Your task to perform on an android device: check google app version Image 0: 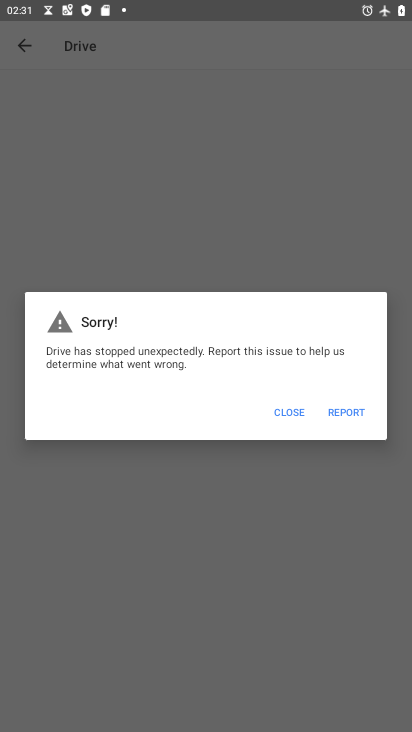
Step 0: press home button
Your task to perform on an android device: check google app version Image 1: 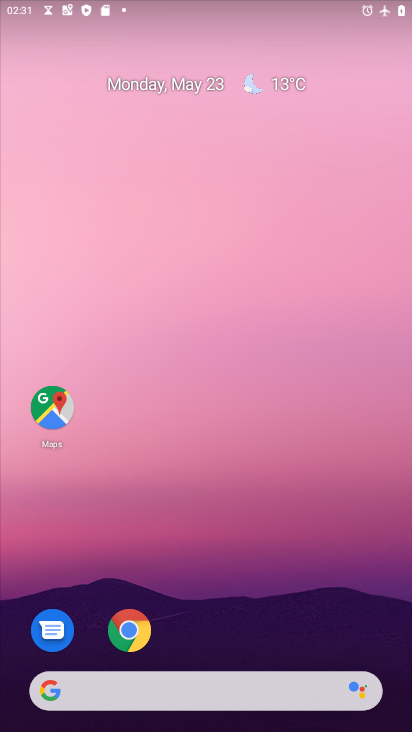
Step 1: drag from (284, 590) to (148, 50)
Your task to perform on an android device: check google app version Image 2: 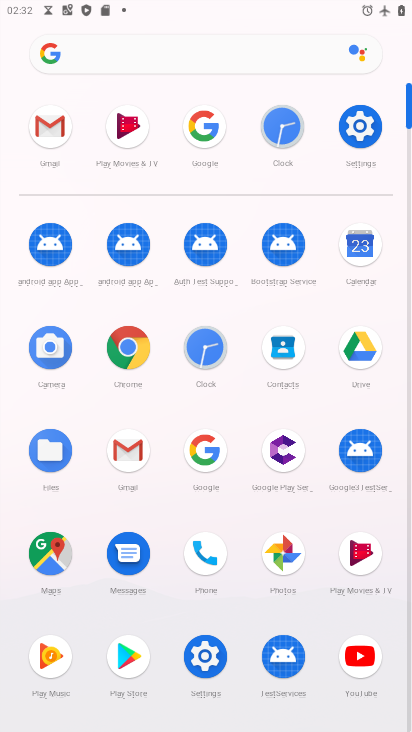
Step 2: click (207, 456)
Your task to perform on an android device: check google app version Image 3: 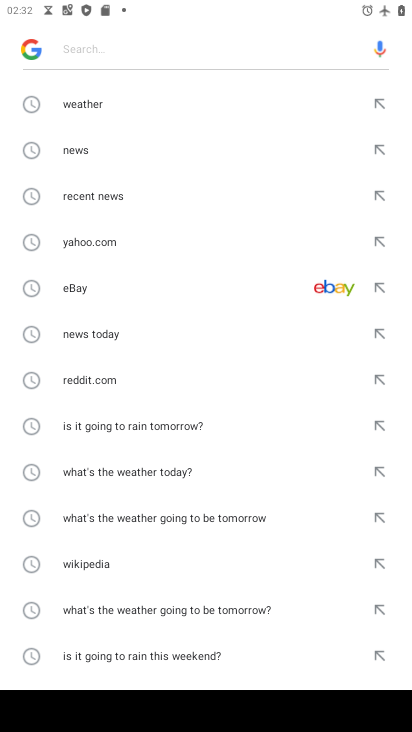
Step 3: press back button
Your task to perform on an android device: check google app version Image 4: 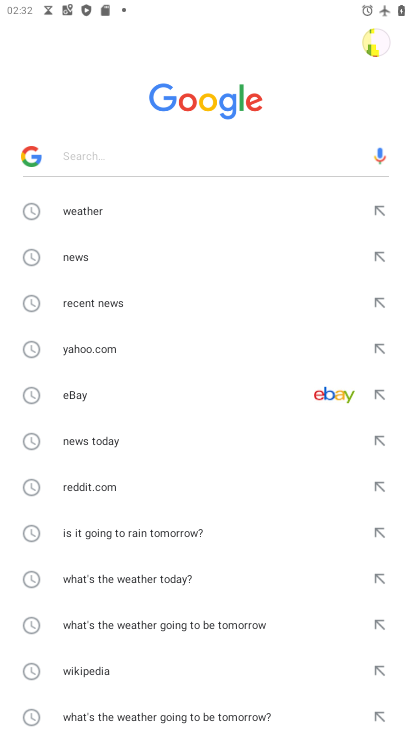
Step 4: press back button
Your task to perform on an android device: check google app version Image 5: 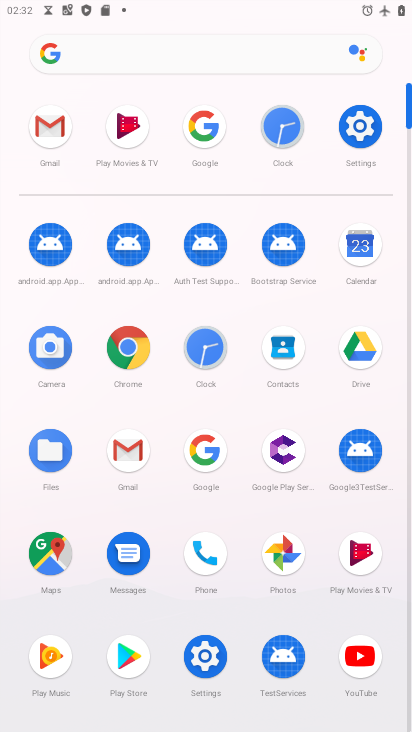
Step 5: click (205, 454)
Your task to perform on an android device: check google app version Image 6: 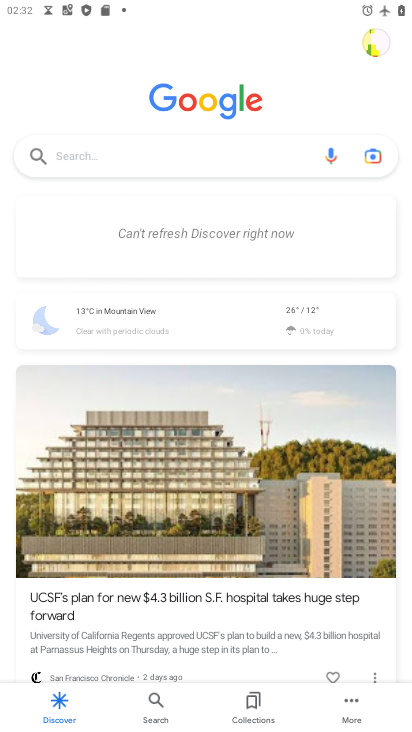
Step 6: click (349, 703)
Your task to perform on an android device: check google app version Image 7: 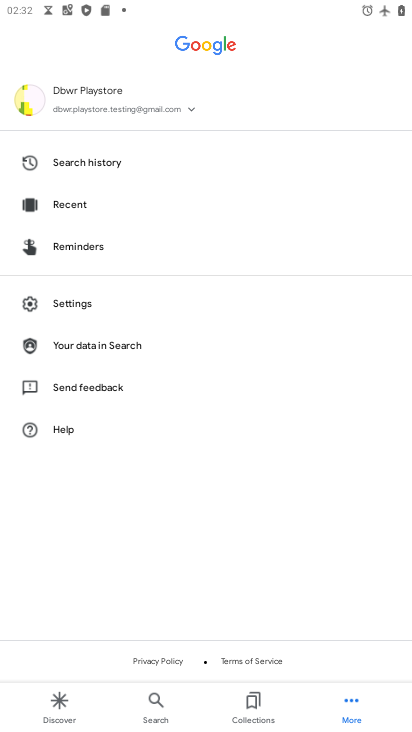
Step 7: click (93, 305)
Your task to perform on an android device: check google app version Image 8: 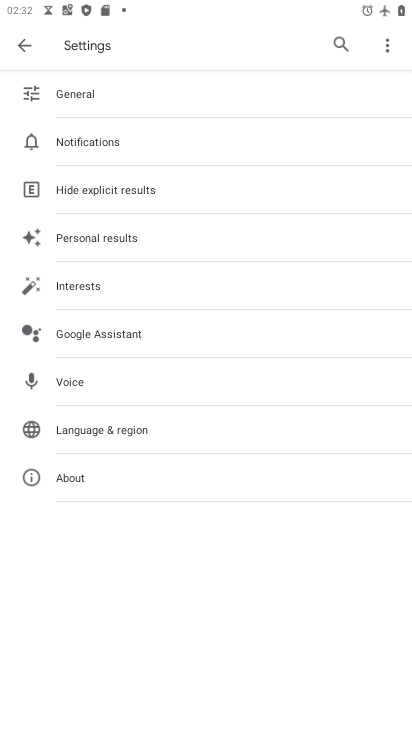
Step 8: click (91, 486)
Your task to perform on an android device: check google app version Image 9: 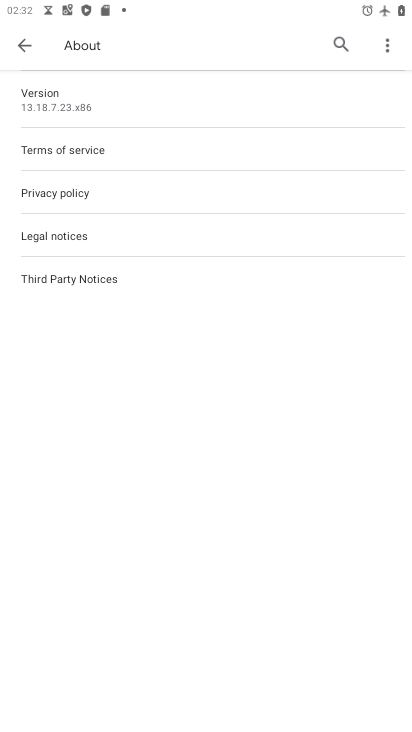
Step 9: click (233, 105)
Your task to perform on an android device: check google app version Image 10: 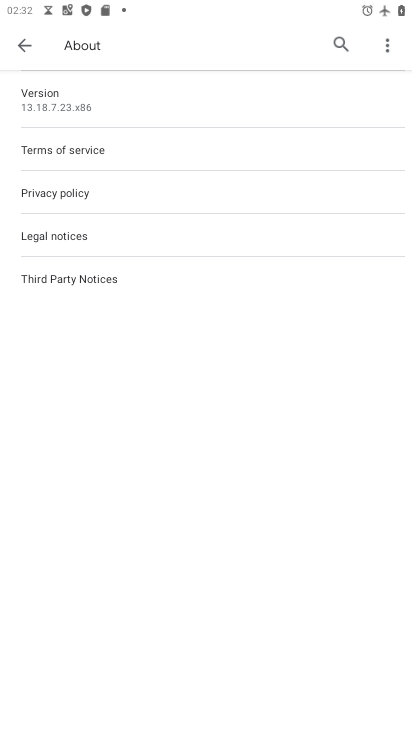
Step 10: task complete